Your task to perform on an android device: Open ESPN.com Image 0: 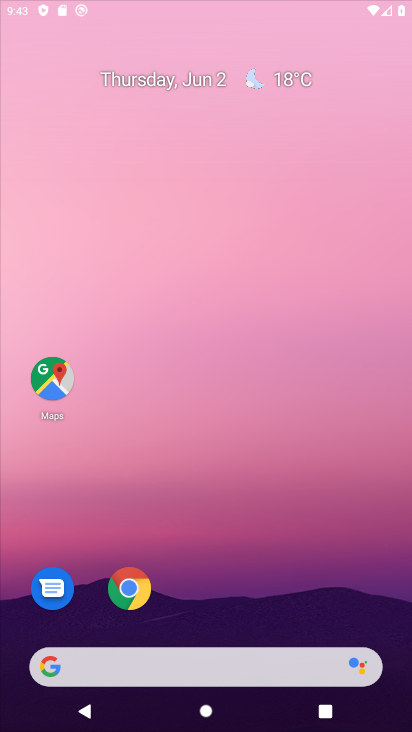
Step 0: drag from (279, 715) to (205, 54)
Your task to perform on an android device: Open ESPN.com Image 1: 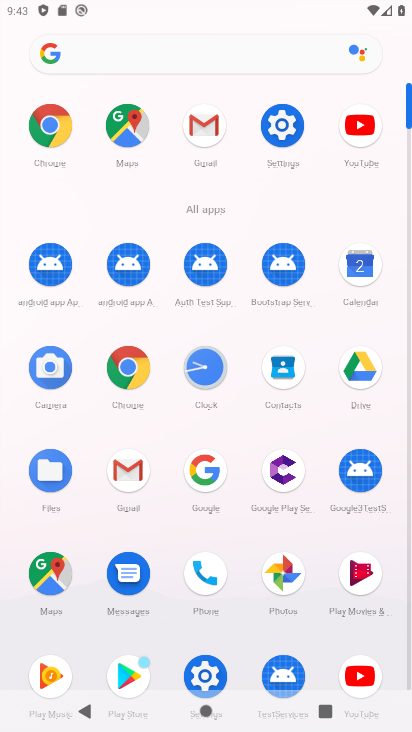
Step 1: click (39, 118)
Your task to perform on an android device: Open ESPN.com Image 2: 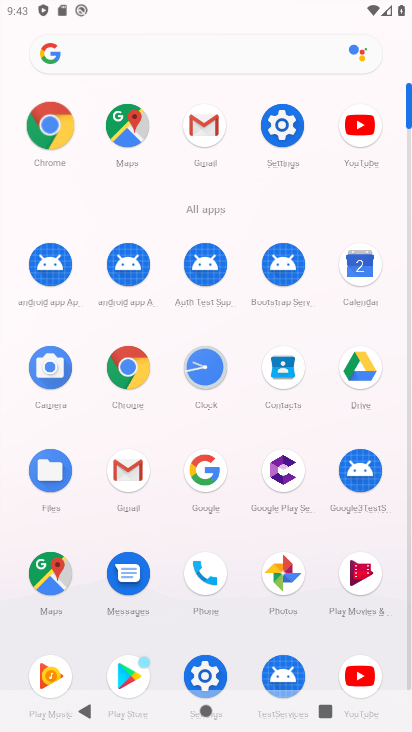
Step 2: click (49, 123)
Your task to perform on an android device: Open ESPN.com Image 3: 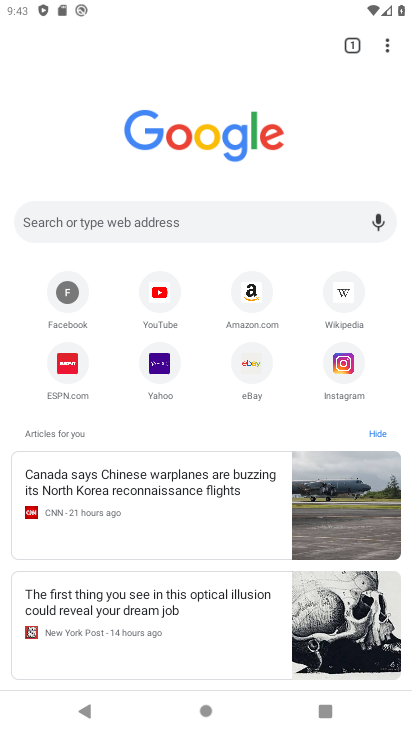
Step 3: click (70, 367)
Your task to perform on an android device: Open ESPN.com Image 4: 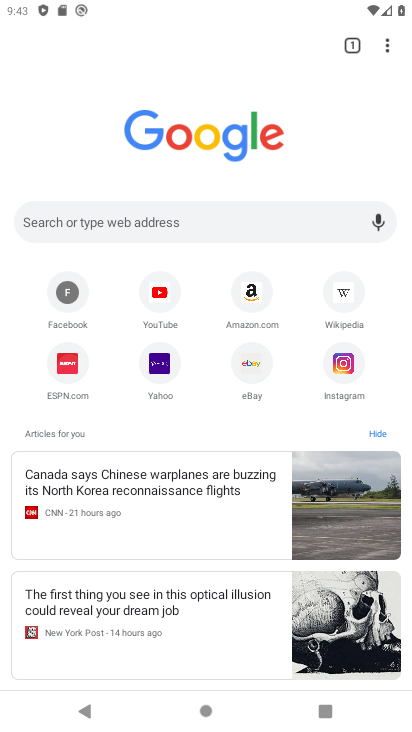
Step 4: click (65, 362)
Your task to perform on an android device: Open ESPN.com Image 5: 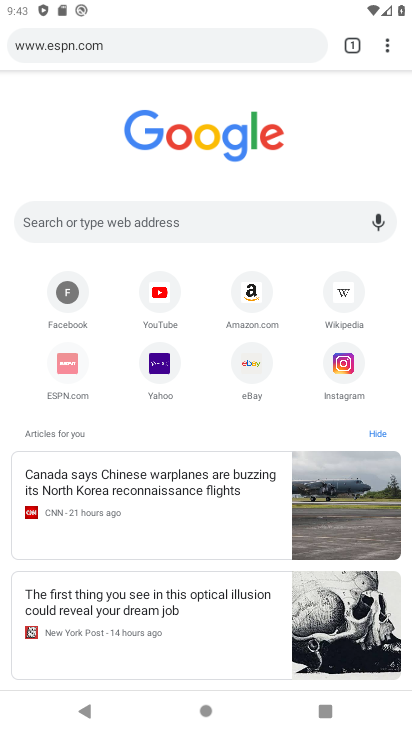
Step 5: click (64, 360)
Your task to perform on an android device: Open ESPN.com Image 6: 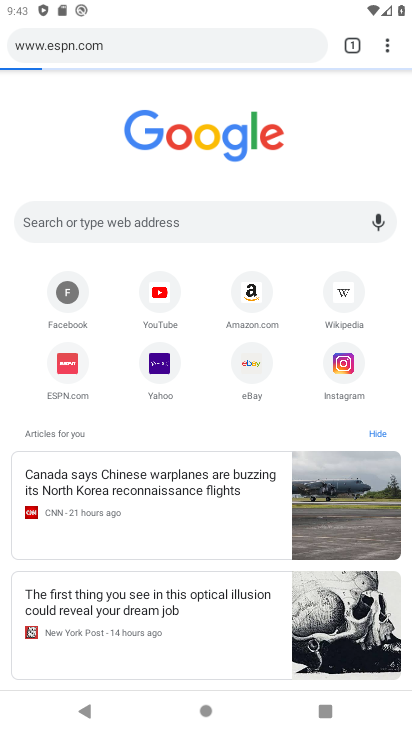
Step 6: click (62, 355)
Your task to perform on an android device: Open ESPN.com Image 7: 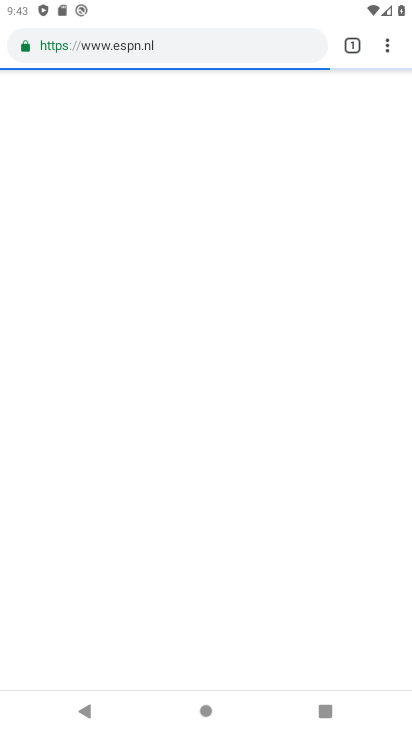
Step 7: task complete